Your task to perform on an android device: turn off wifi Image 0: 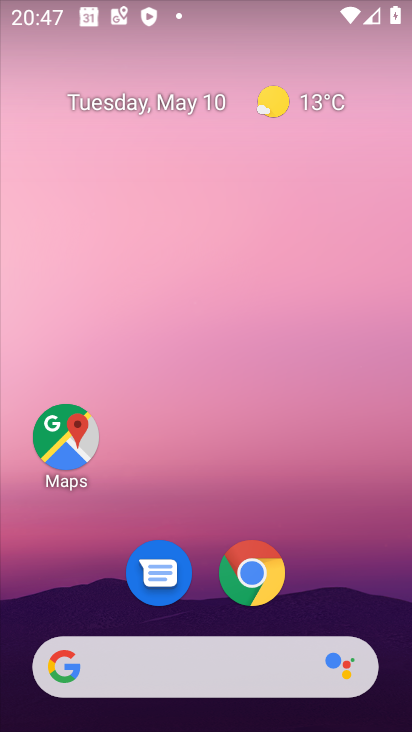
Step 0: drag from (332, 602) to (270, 1)
Your task to perform on an android device: turn off wifi Image 1: 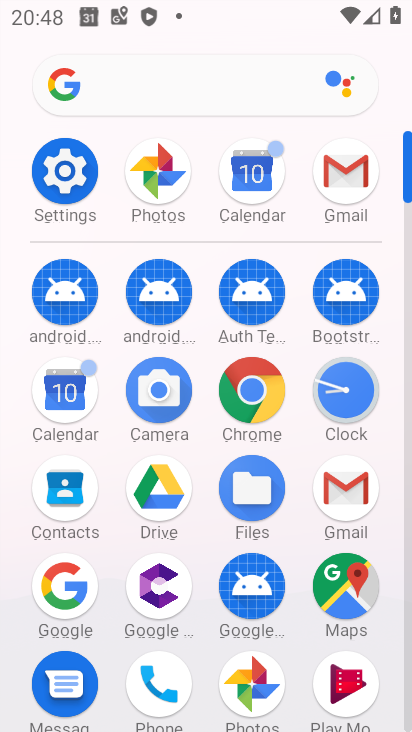
Step 1: click (56, 180)
Your task to perform on an android device: turn off wifi Image 2: 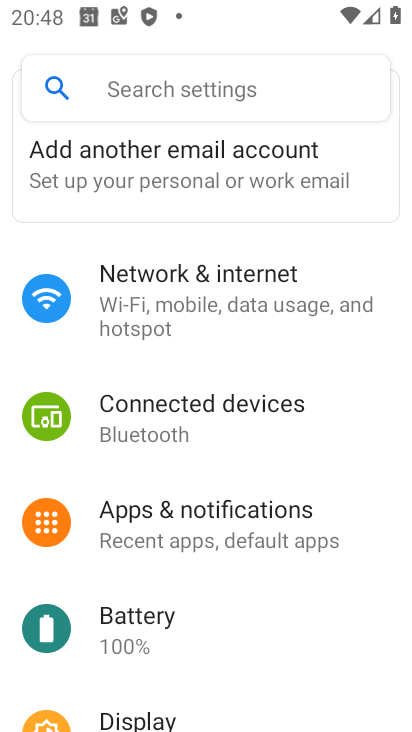
Step 2: click (167, 313)
Your task to perform on an android device: turn off wifi Image 3: 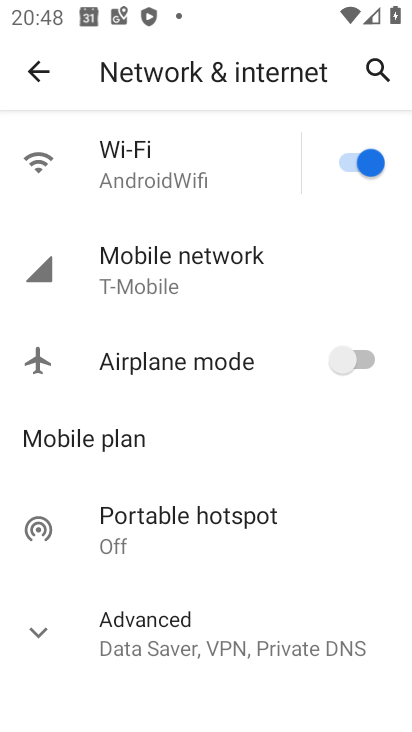
Step 3: click (354, 170)
Your task to perform on an android device: turn off wifi Image 4: 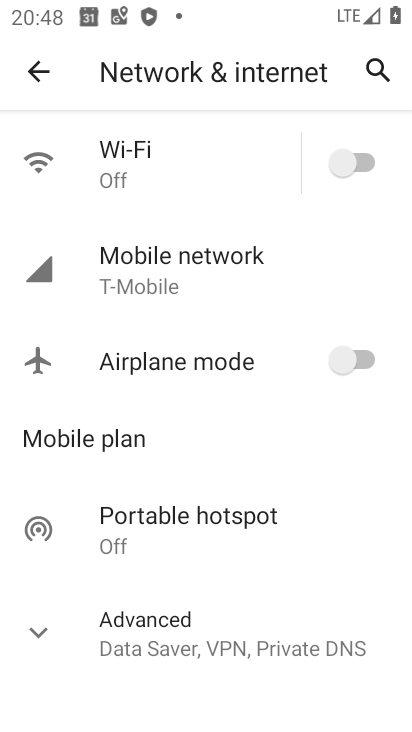
Step 4: task complete